Your task to perform on an android device: add a label to a message in the gmail app Image 0: 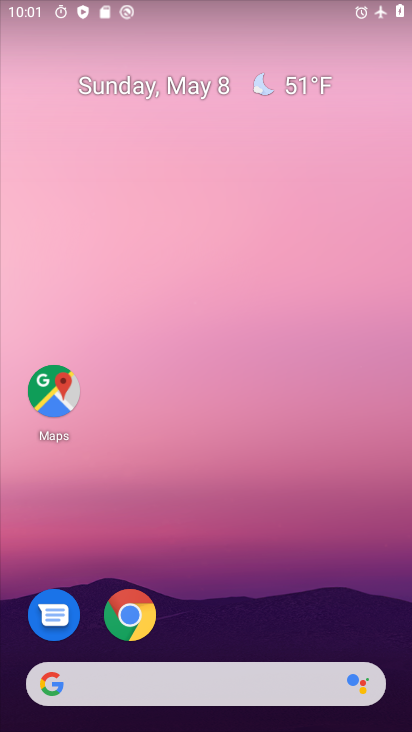
Step 0: drag from (212, 545) to (114, 92)
Your task to perform on an android device: add a label to a message in the gmail app Image 1: 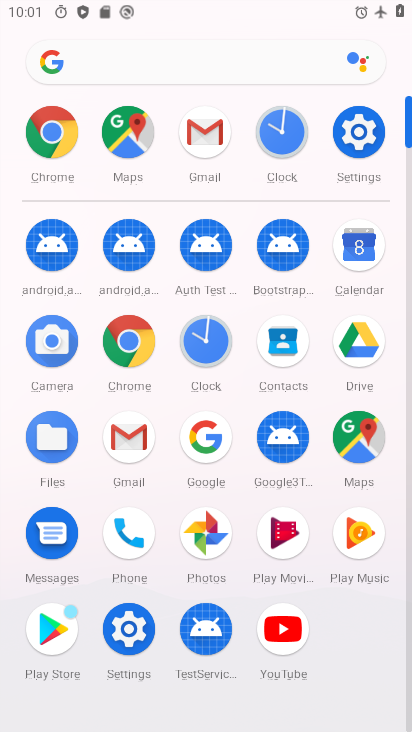
Step 1: click (194, 139)
Your task to perform on an android device: add a label to a message in the gmail app Image 2: 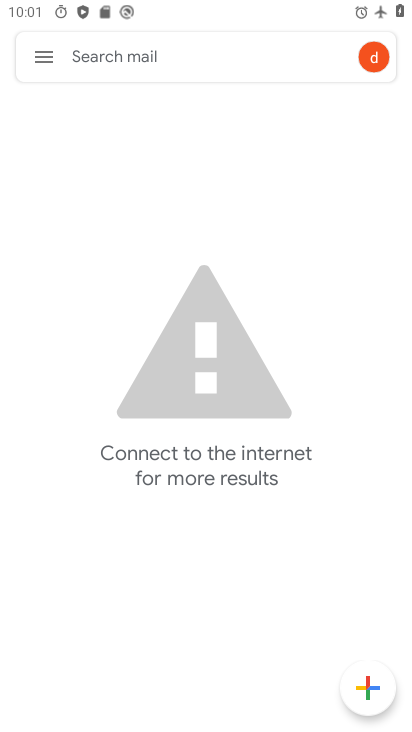
Step 2: click (35, 50)
Your task to perform on an android device: add a label to a message in the gmail app Image 3: 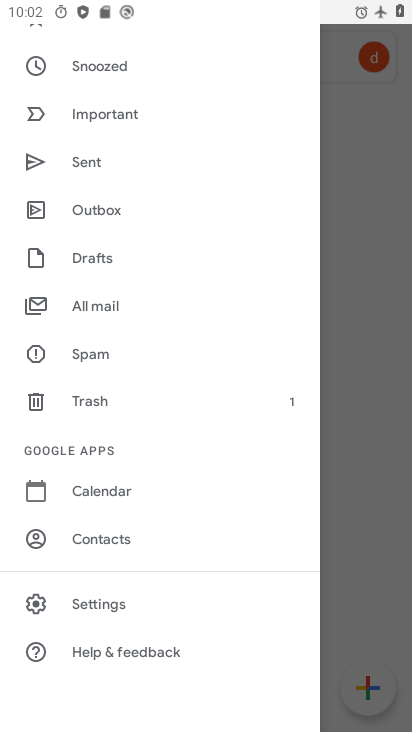
Step 3: click (70, 311)
Your task to perform on an android device: add a label to a message in the gmail app Image 4: 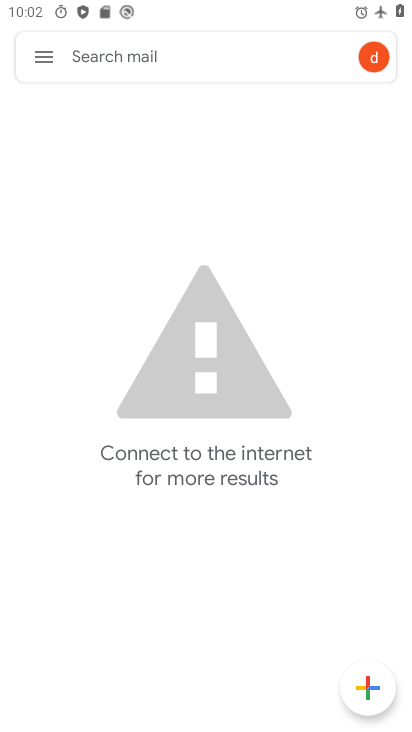
Step 4: task complete